Your task to perform on an android device: move a message to another label in the gmail app Image 0: 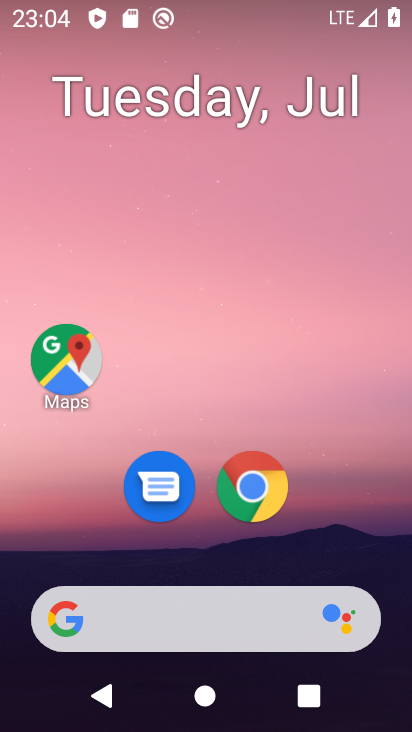
Step 0: press home button
Your task to perform on an android device: move a message to another label in the gmail app Image 1: 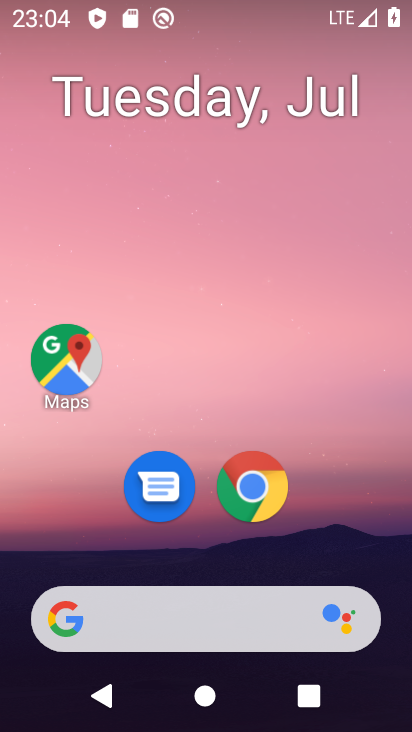
Step 1: drag from (355, 561) to (357, 130)
Your task to perform on an android device: move a message to another label in the gmail app Image 2: 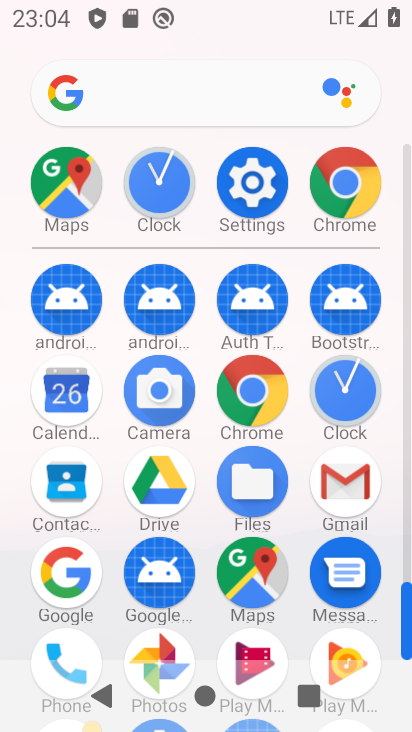
Step 2: click (356, 489)
Your task to perform on an android device: move a message to another label in the gmail app Image 3: 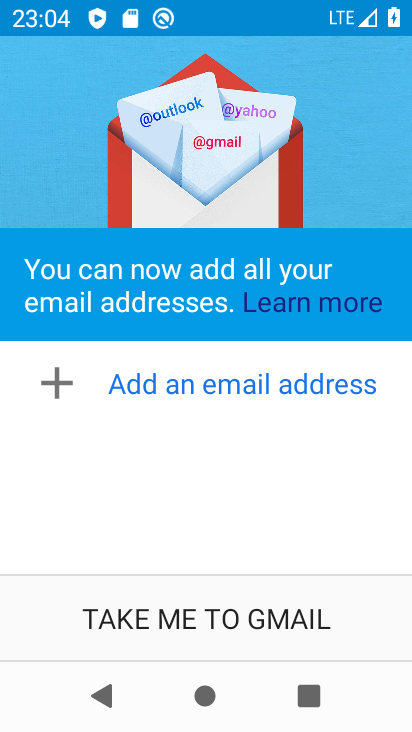
Step 3: click (293, 631)
Your task to perform on an android device: move a message to another label in the gmail app Image 4: 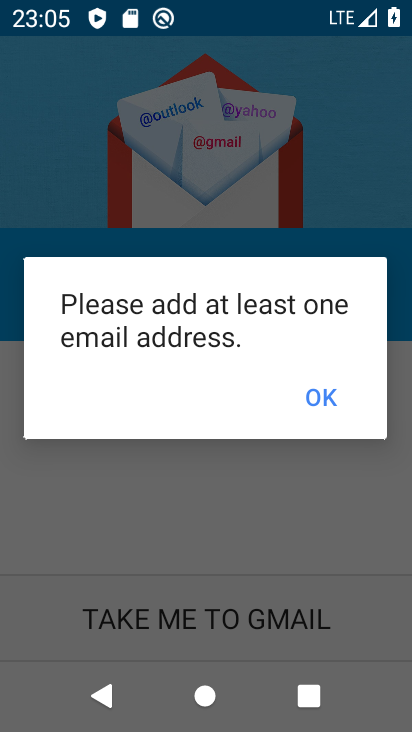
Step 4: task complete